Your task to perform on an android device: Search for pizza restaurants on Maps Image 0: 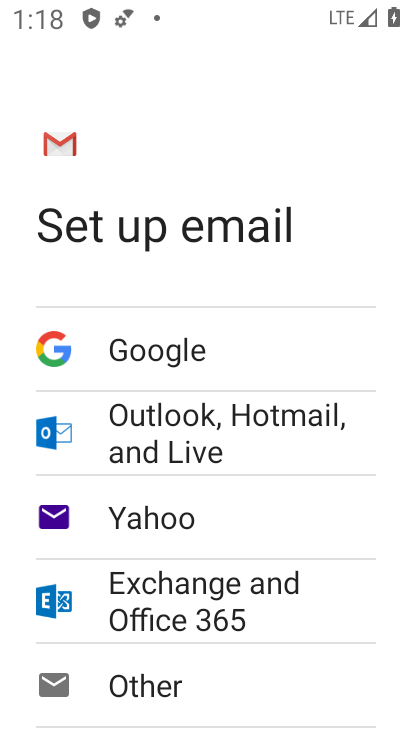
Step 0: press home button
Your task to perform on an android device: Search for pizza restaurants on Maps Image 1: 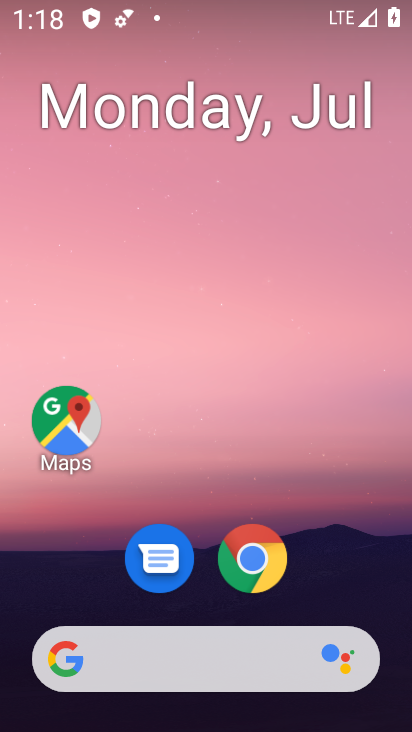
Step 1: drag from (379, 546) to (396, 100)
Your task to perform on an android device: Search for pizza restaurants on Maps Image 2: 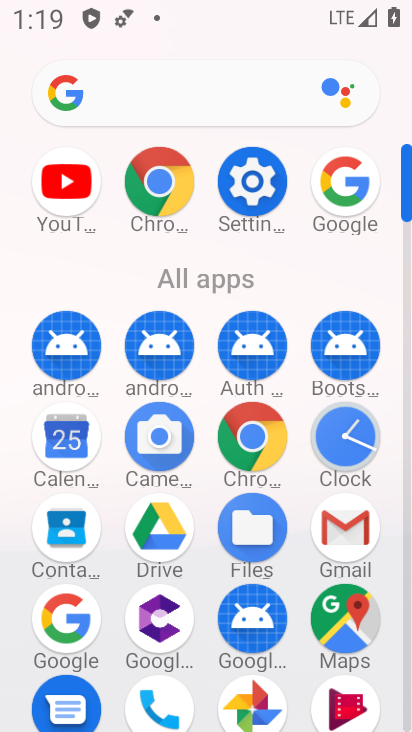
Step 2: click (351, 618)
Your task to perform on an android device: Search for pizza restaurants on Maps Image 3: 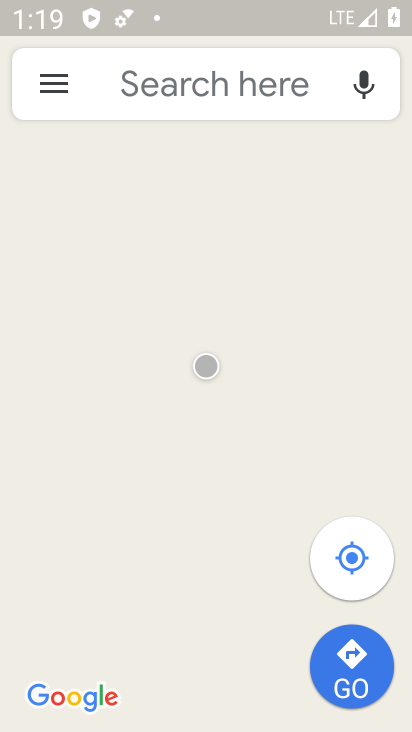
Step 3: click (256, 99)
Your task to perform on an android device: Search for pizza restaurants on Maps Image 4: 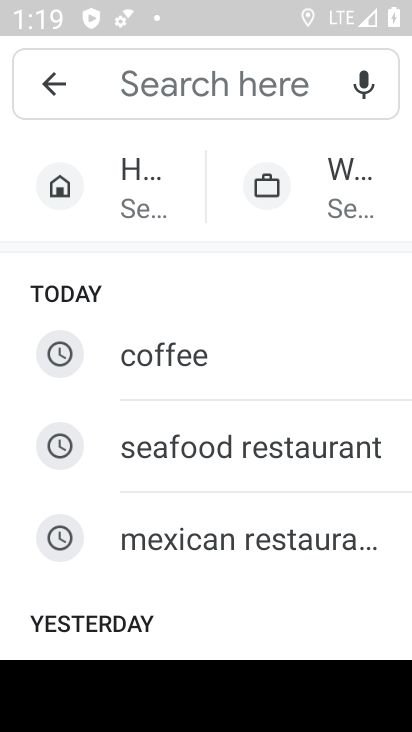
Step 4: type "pizza restaurants"
Your task to perform on an android device: Search for pizza restaurants on Maps Image 5: 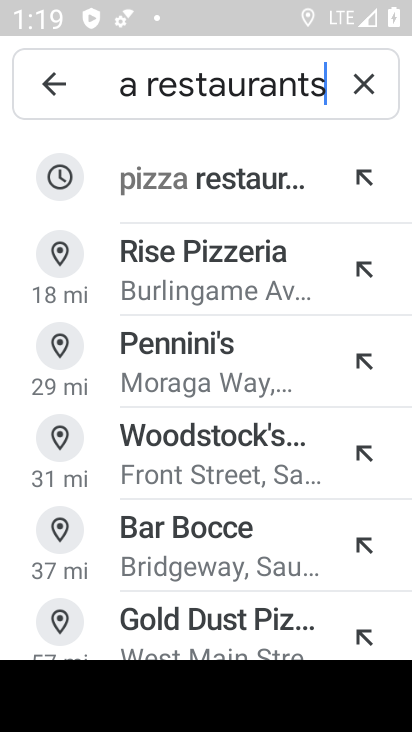
Step 5: click (283, 191)
Your task to perform on an android device: Search for pizza restaurants on Maps Image 6: 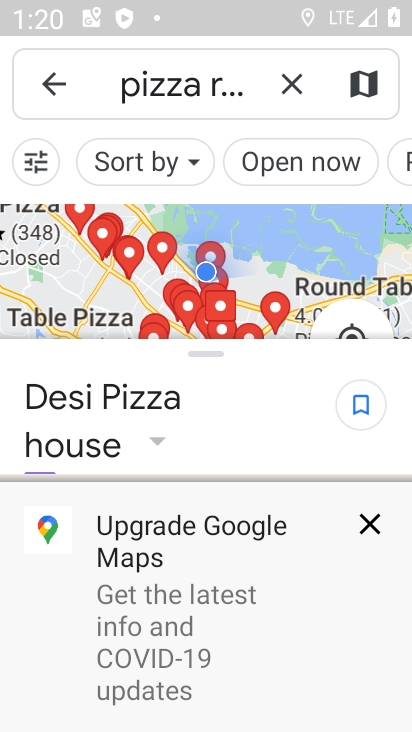
Step 6: task complete